Your task to perform on an android device: search for starred emails in the gmail app Image 0: 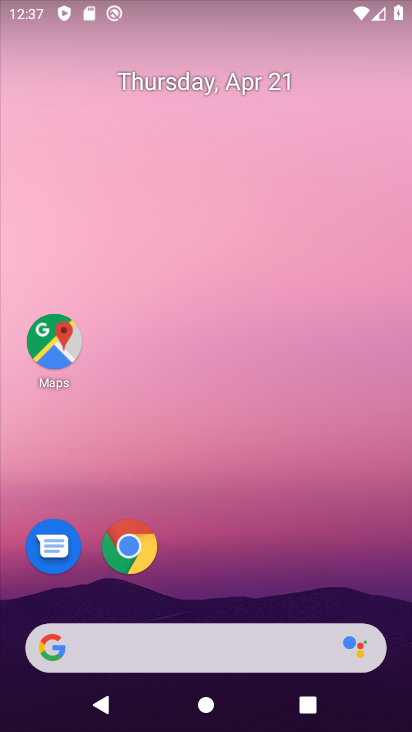
Step 0: drag from (233, 563) to (242, 150)
Your task to perform on an android device: search for starred emails in the gmail app Image 1: 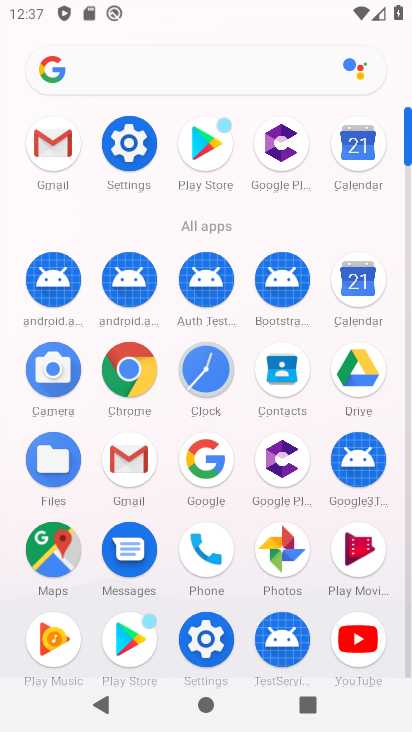
Step 1: click (113, 457)
Your task to perform on an android device: search for starred emails in the gmail app Image 2: 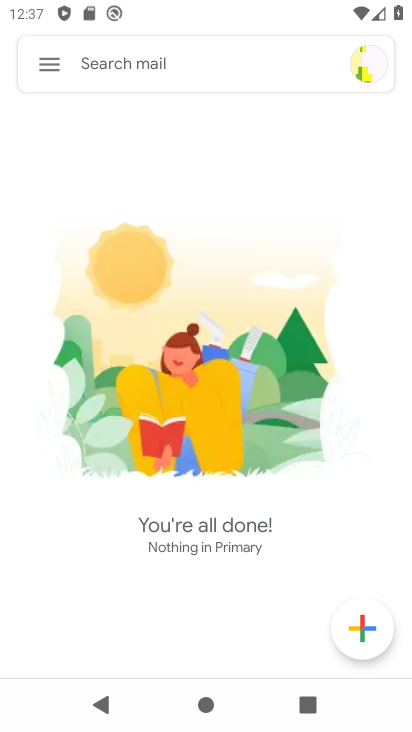
Step 2: click (48, 60)
Your task to perform on an android device: search for starred emails in the gmail app Image 3: 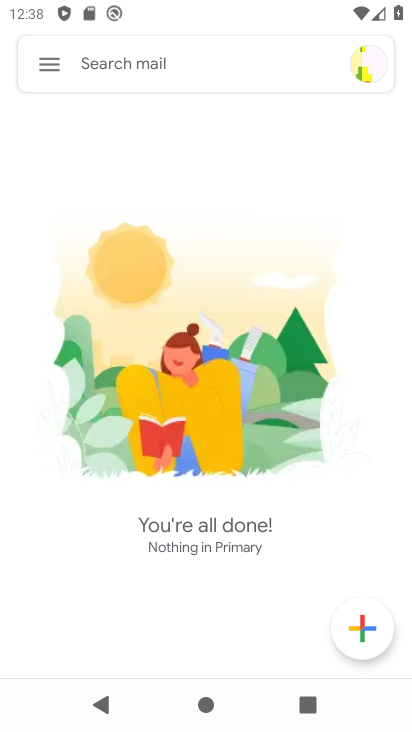
Step 3: click (49, 67)
Your task to perform on an android device: search for starred emails in the gmail app Image 4: 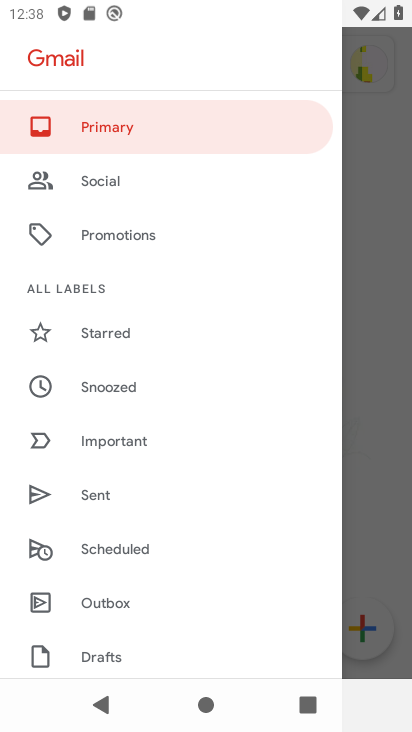
Step 4: click (118, 337)
Your task to perform on an android device: search for starred emails in the gmail app Image 5: 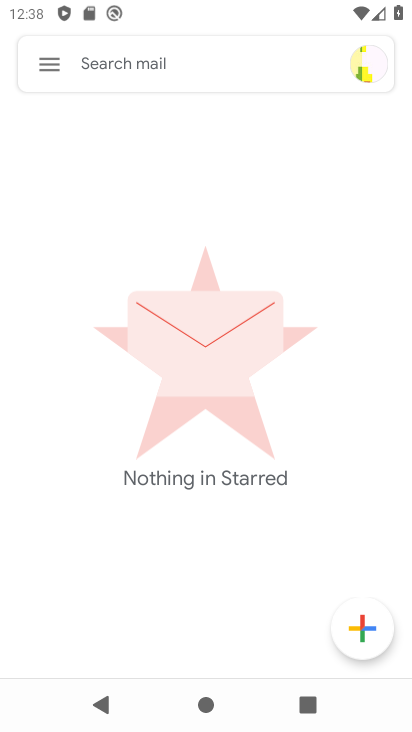
Step 5: task complete